Your task to perform on an android device: check data usage Image 0: 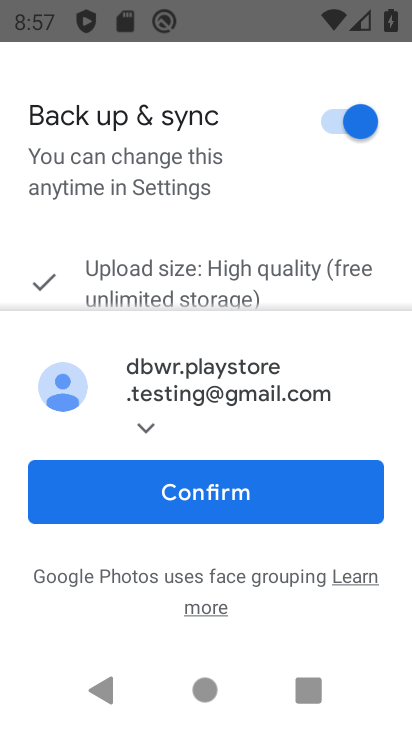
Step 0: press home button
Your task to perform on an android device: check data usage Image 1: 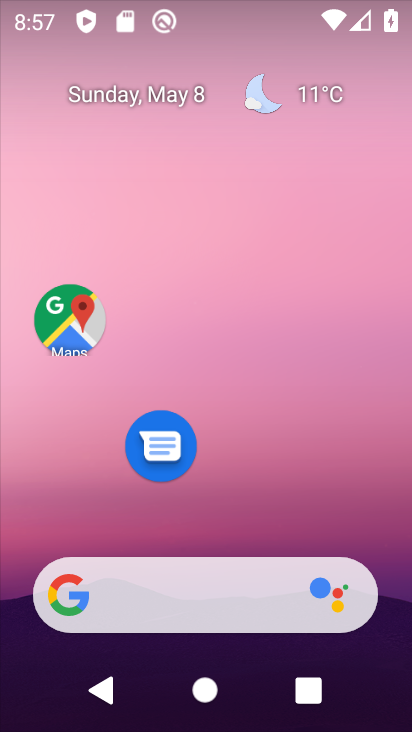
Step 1: drag from (335, 497) to (351, 31)
Your task to perform on an android device: check data usage Image 2: 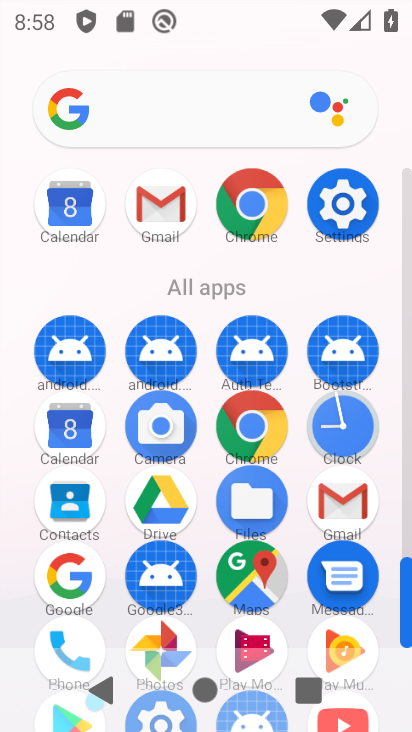
Step 2: drag from (237, 2) to (244, 727)
Your task to perform on an android device: check data usage Image 3: 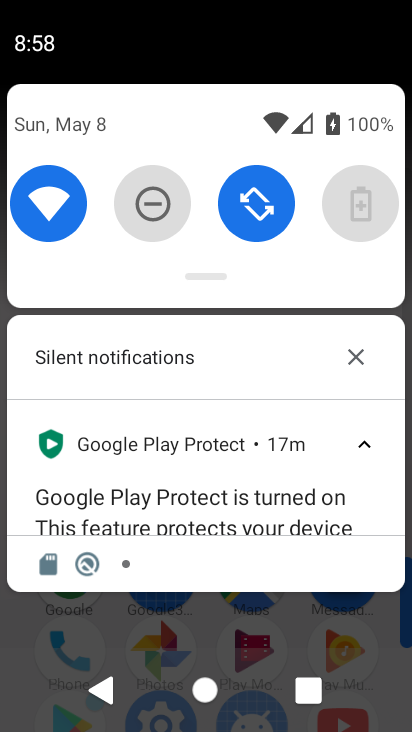
Step 3: drag from (213, 265) to (208, 388)
Your task to perform on an android device: check data usage Image 4: 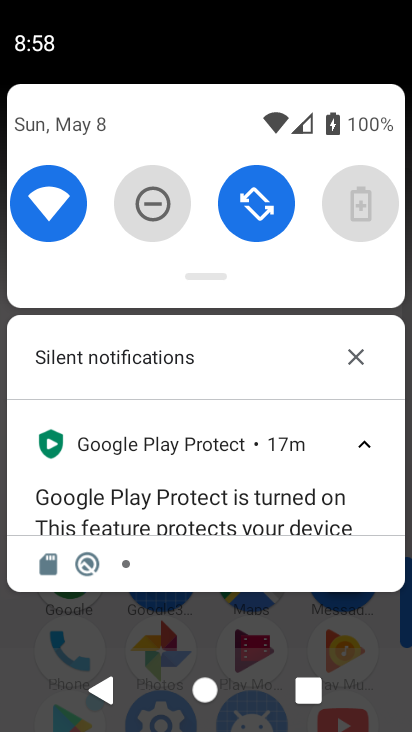
Step 4: drag from (218, 275) to (305, 715)
Your task to perform on an android device: check data usage Image 5: 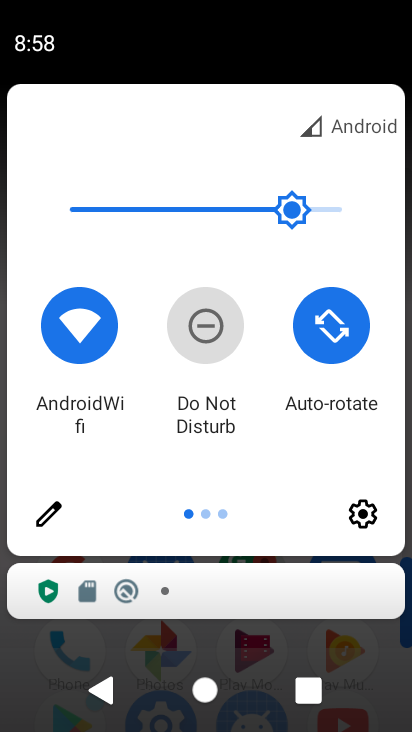
Step 5: drag from (396, 339) to (7, 347)
Your task to perform on an android device: check data usage Image 6: 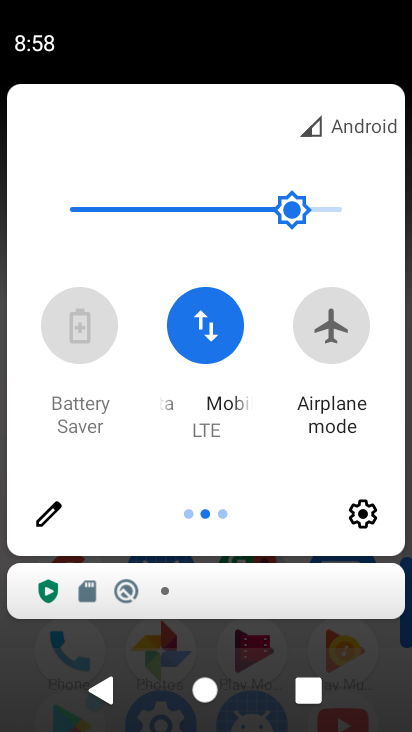
Step 6: click (220, 331)
Your task to perform on an android device: check data usage Image 7: 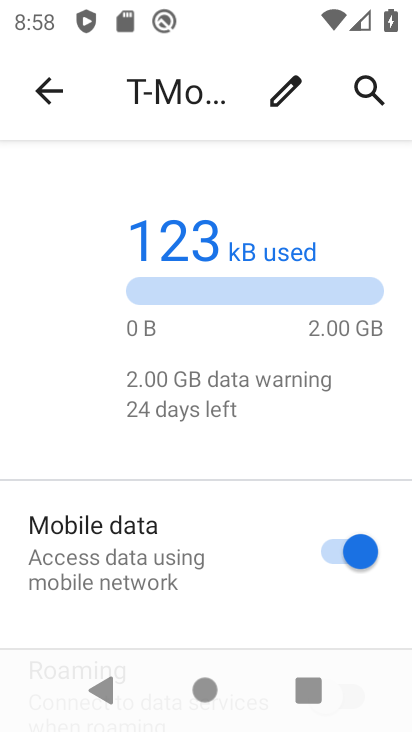
Step 7: task complete